Your task to perform on an android device: turn on notifications settings in the gmail app Image 0: 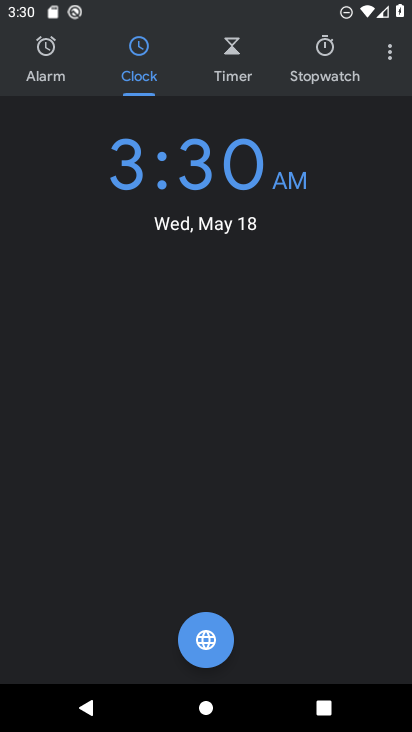
Step 0: press home button
Your task to perform on an android device: turn on notifications settings in the gmail app Image 1: 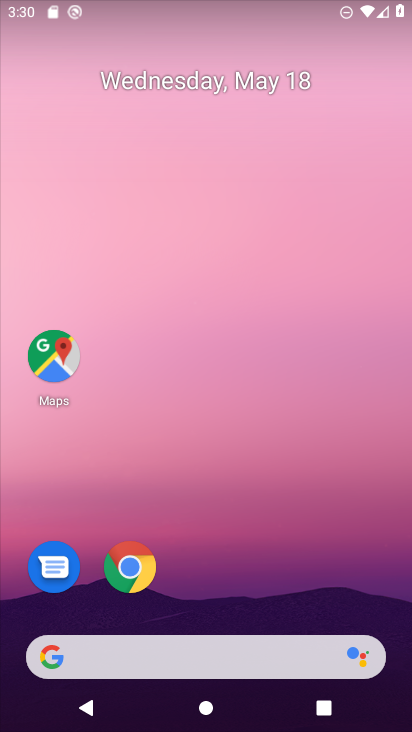
Step 1: drag from (197, 617) to (270, 393)
Your task to perform on an android device: turn on notifications settings in the gmail app Image 2: 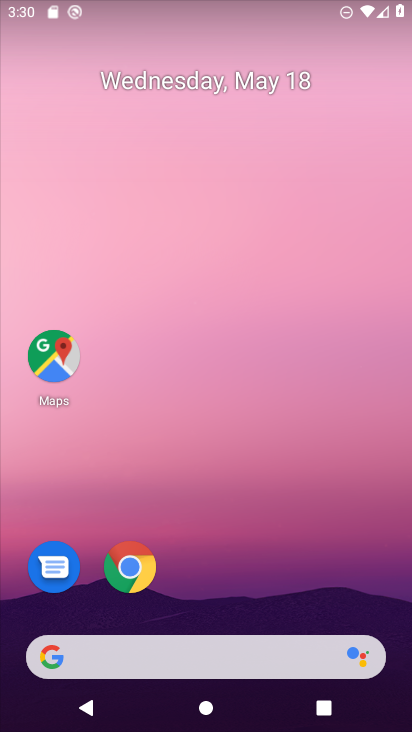
Step 2: drag from (261, 608) to (283, 49)
Your task to perform on an android device: turn on notifications settings in the gmail app Image 3: 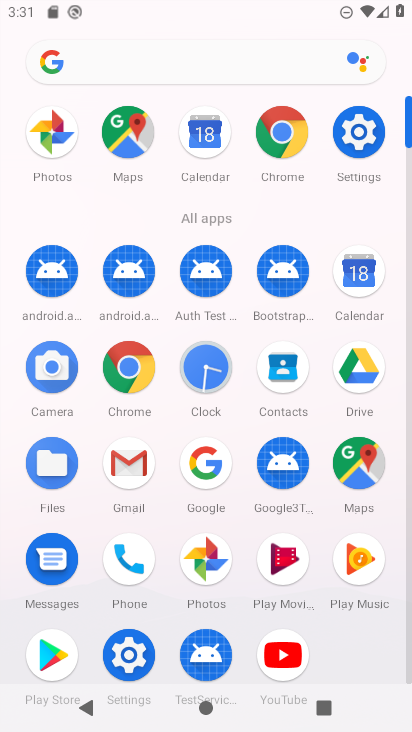
Step 3: click (128, 468)
Your task to perform on an android device: turn on notifications settings in the gmail app Image 4: 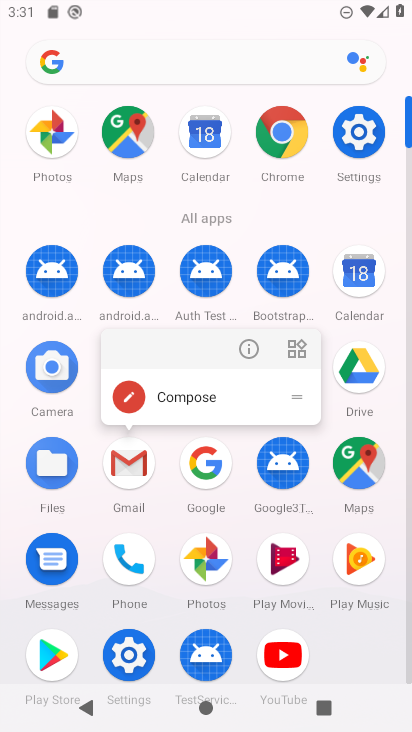
Step 4: click (250, 343)
Your task to perform on an android device: turn on notifications settings in the gmail app Image 5: 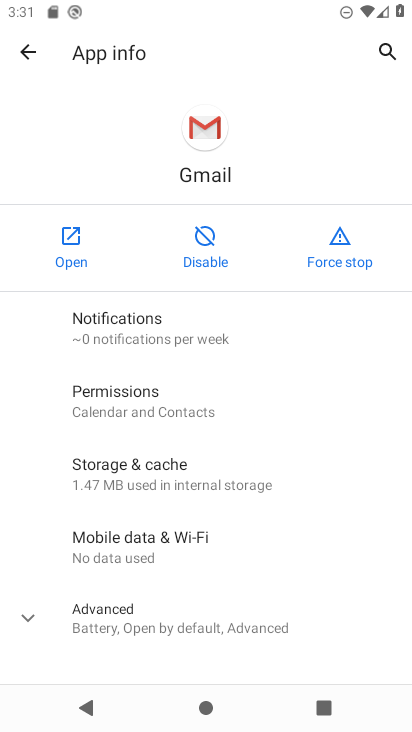
Step 5: click (136, 323)
Your task to perform on an android device: turn on notifications settings in the gmail app Image 6: 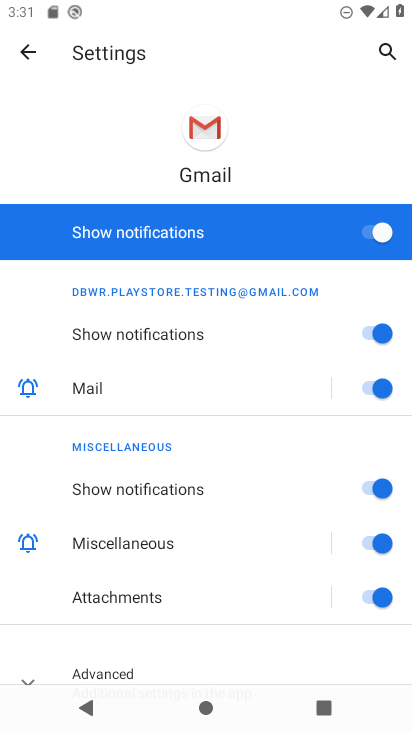
Step 6: task complete